Your task to perform on an android device: check battery use Image 0: 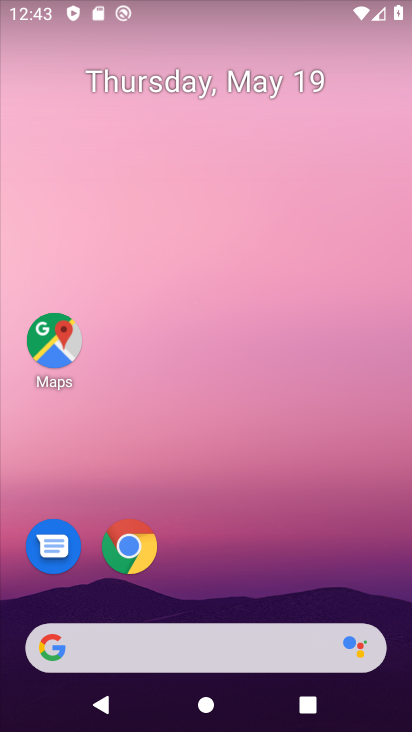
Step 0: press home button
Your task to perform on an android device: check battery use Image 1: 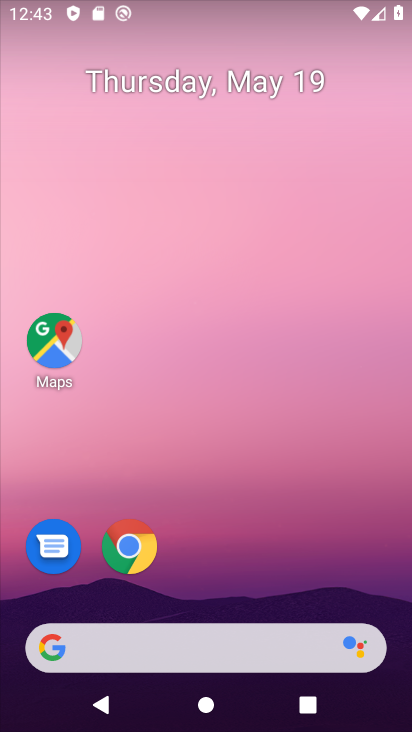
Step 1: drag from (197, 568) to (188, 0)
Your task to perform on an android device: check battery use Image 2: 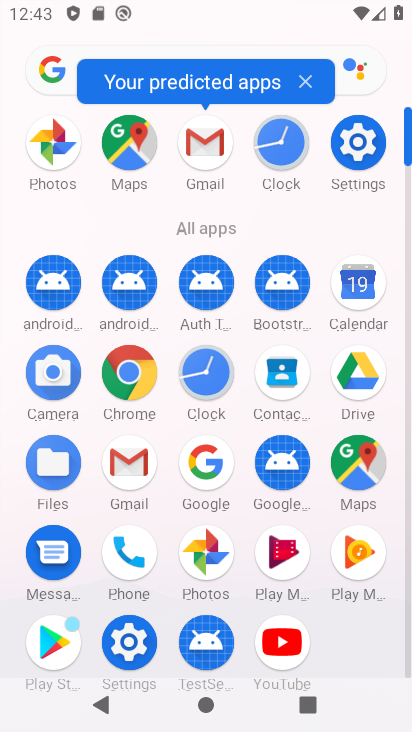
Step 2: click (353, 138)
Your task to perform on an android device: check battery use Image 3: 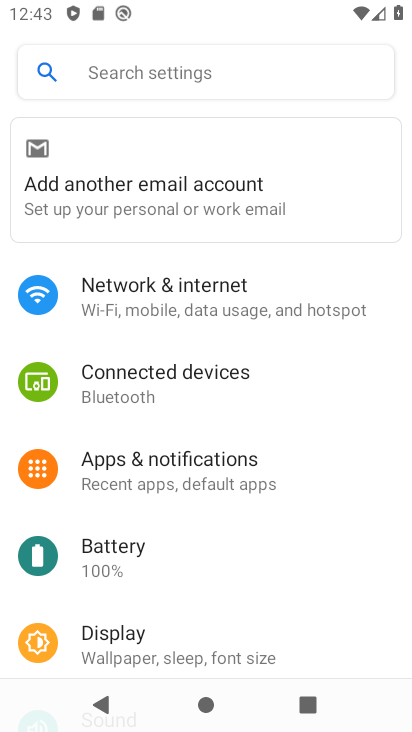
Step 3: click (151, 556)
Your task to perform on an android device: check battery use Image 4: 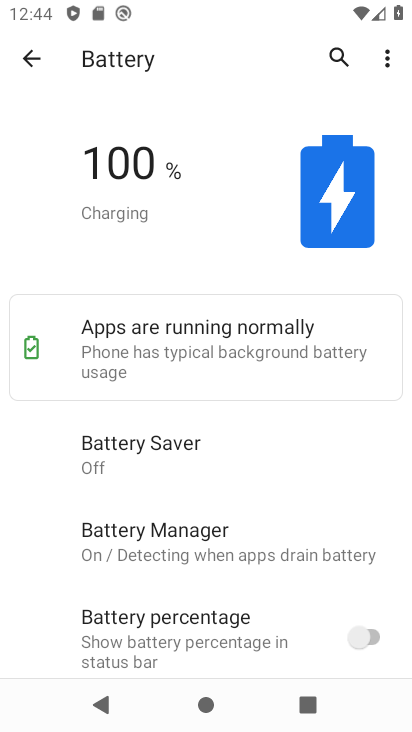
Step 4: click (389, 52)
Your task to perform on an android device: check battery use Image 5: 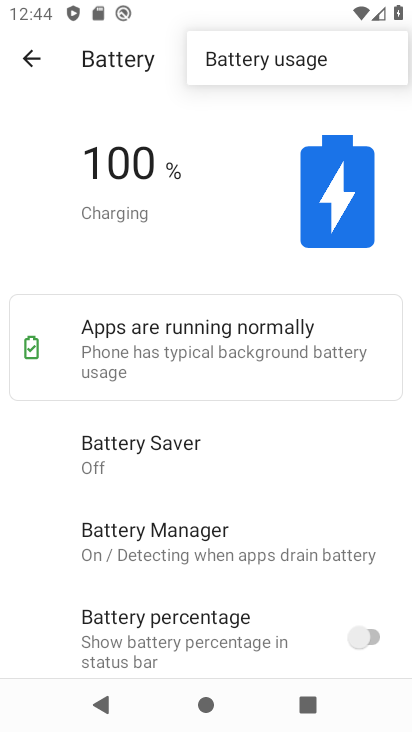
Step 5: click (293, 59)
Your task to perform on an android device: check battery use Image 6: 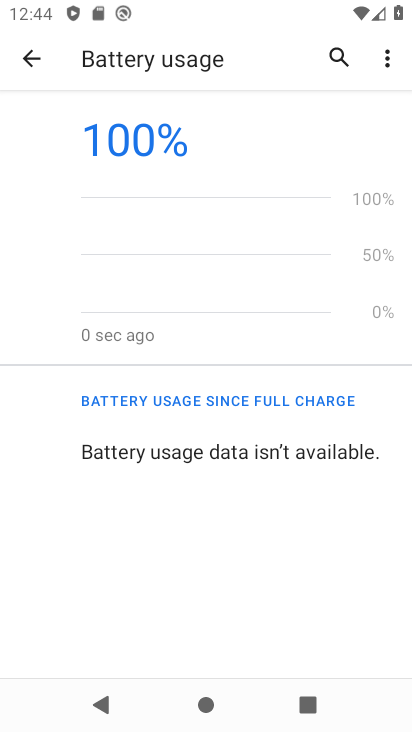
Step 6: task complete